Your task to perform on an android device: Open settings on Google Maps Image 0: 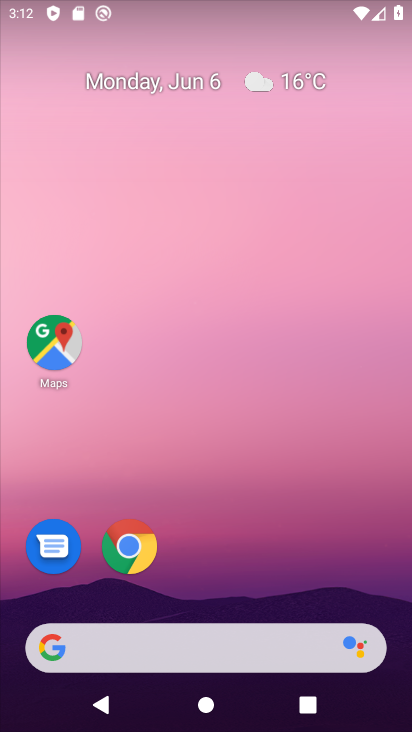
Step 0: drag from (290, 565) to (43, 726)
Your task to perform on an android device: Open settings on Google Maps Image 1: 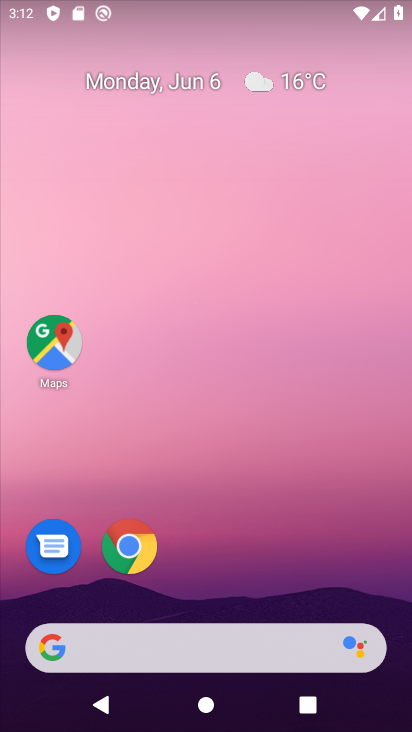
Step 1: drag from (312, 497) to (275, 58)
Your task to perform on an android device: Open settings on Google Maps Image 2: 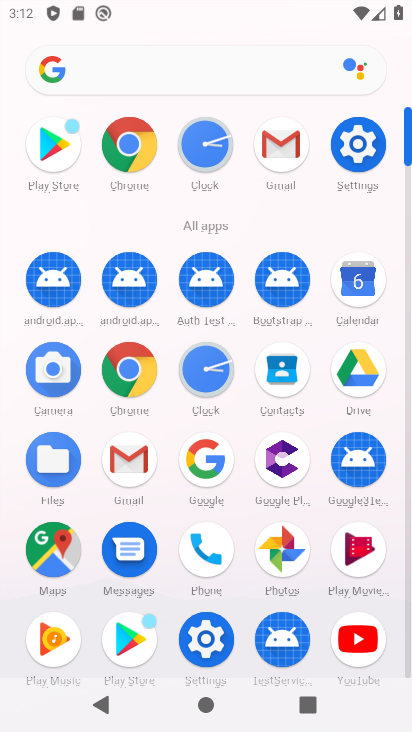
Step 2: click (47, 555)
Your task to perform on an android device: Open settings on Google Maps Image 3: 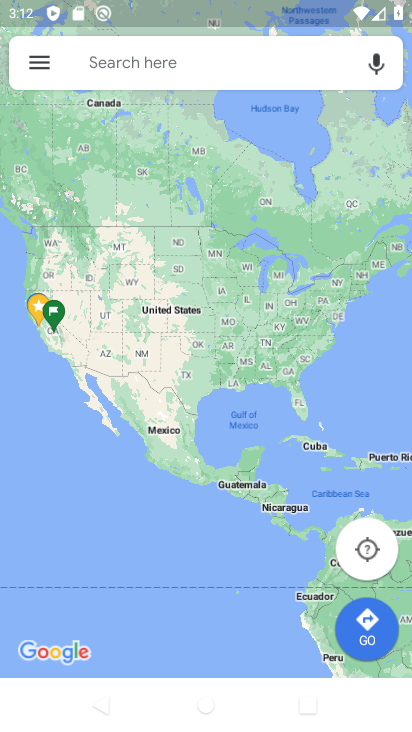
Step 3: task complete